Your task to perform on an android device: open chrome privacy settings Image 0: 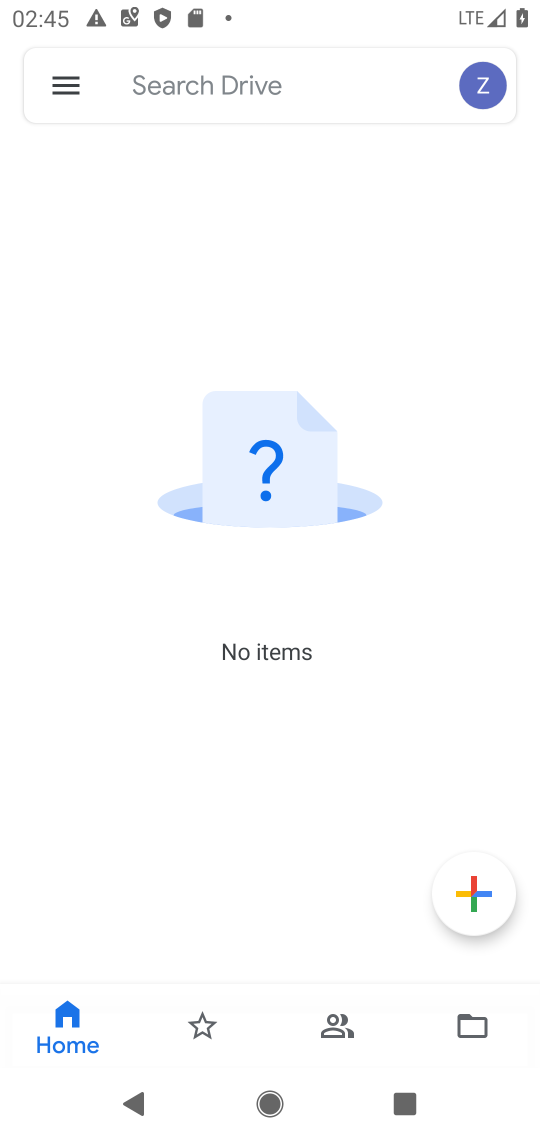
Step 0: press home button
Your task to perform on an android device: open chrome privacy settings Image 1: 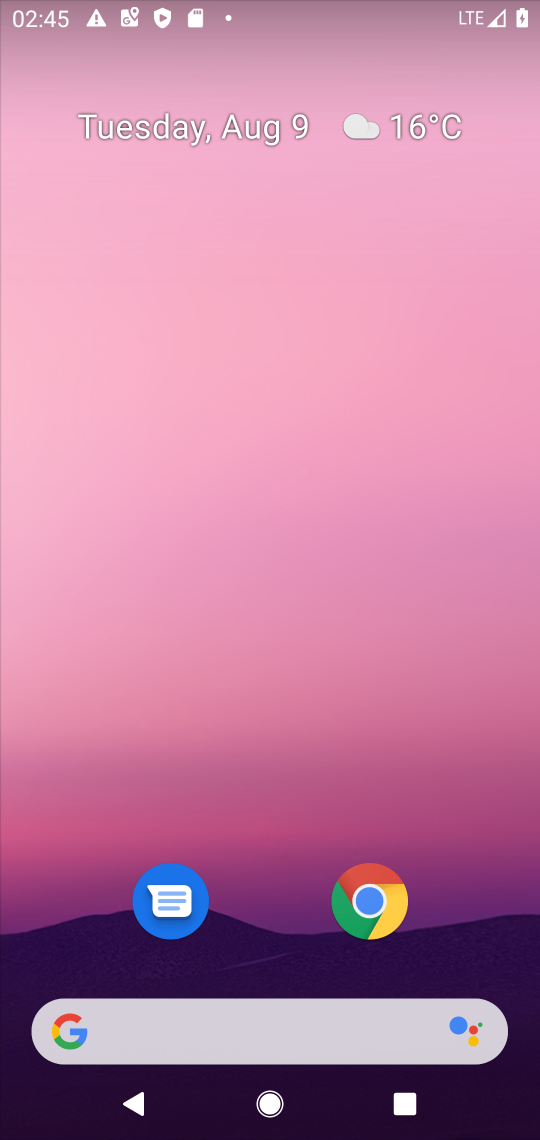
Step 1: click (371, 902)
Your task to perform on an android device: open chrome privacy settings Image 2: 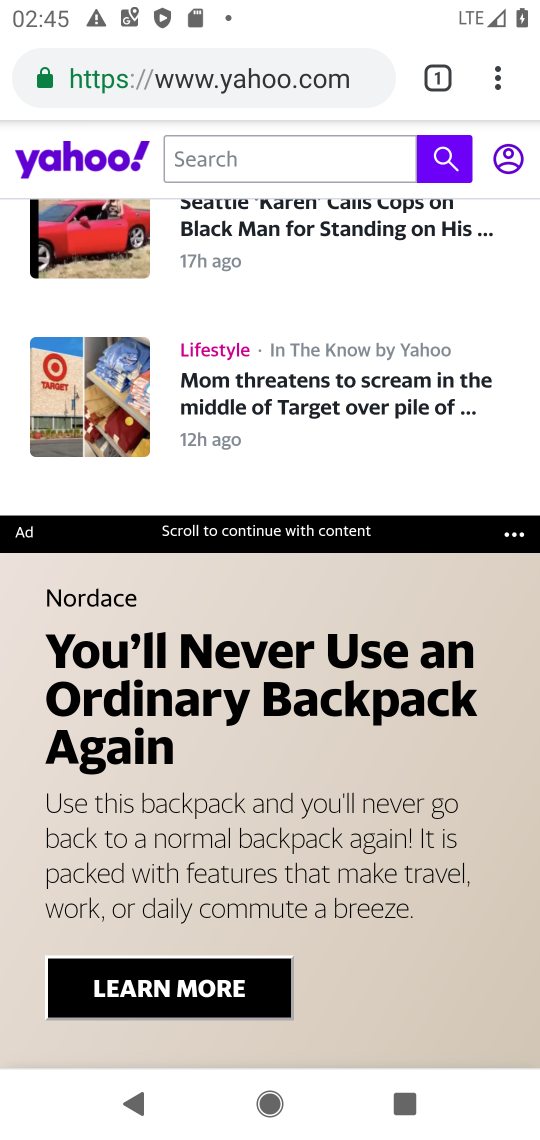
Step 2: click (492, 91)
Your task to perform on an android device: open chrome privacy settings Image 3: 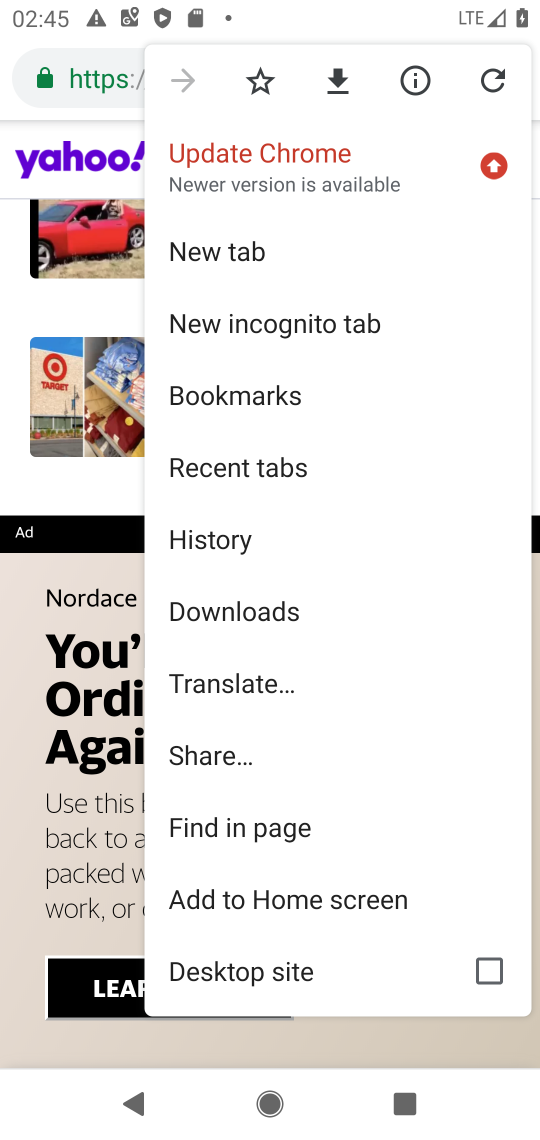
Step 3: drag from (291, 950) to (371, 423)
Your task to perform on an android device: open chrome privacy settings Image 4: 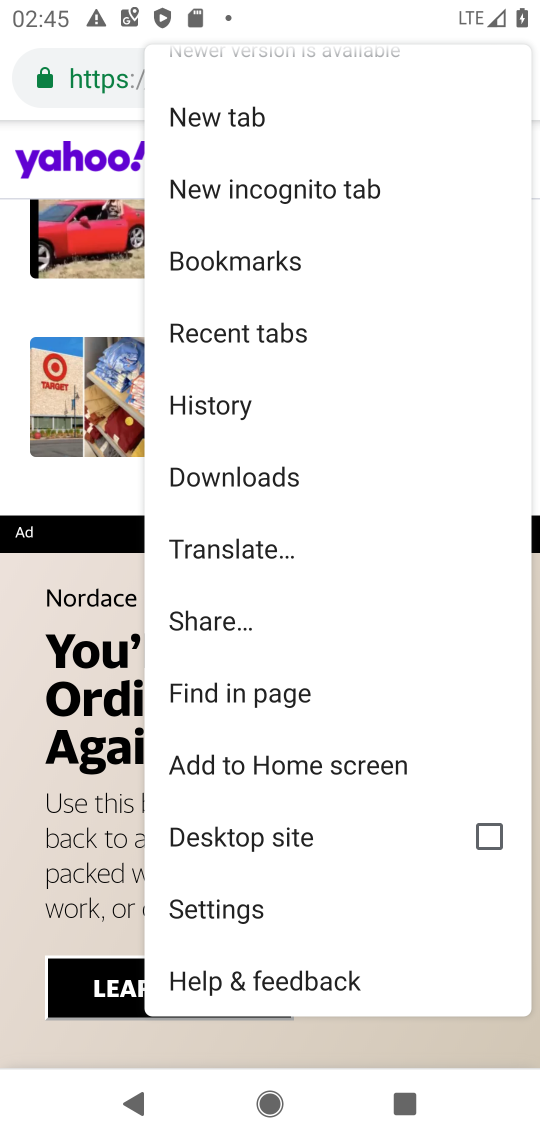
Step 4: click (190, 902)
Your task to perform on an android device: open chrome privacy settings Image 5: 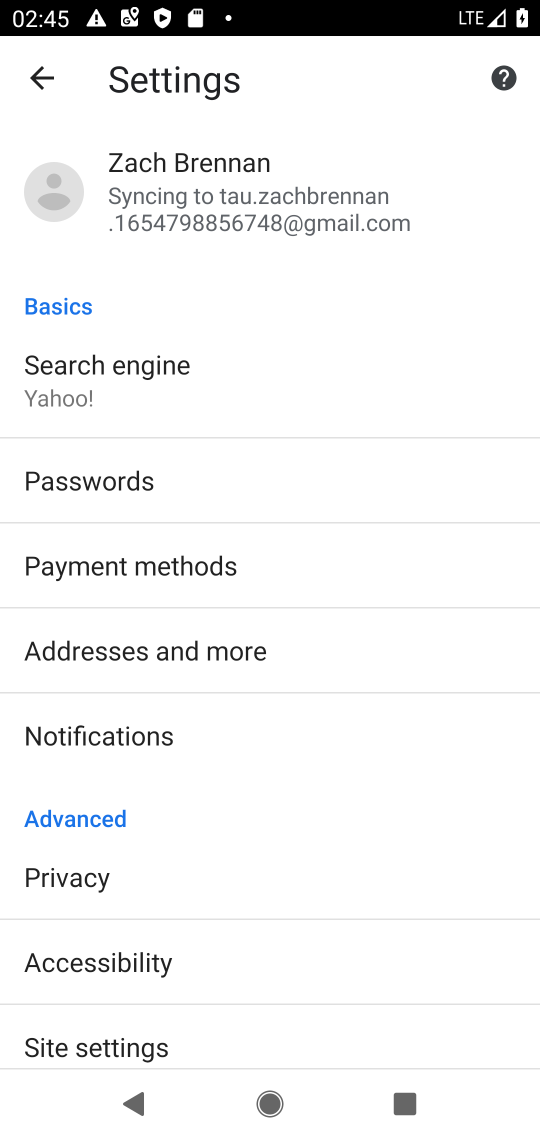
Step 5: click (45, 873)
Your task to perform on an android device: open chrome privacy settings Image 6: 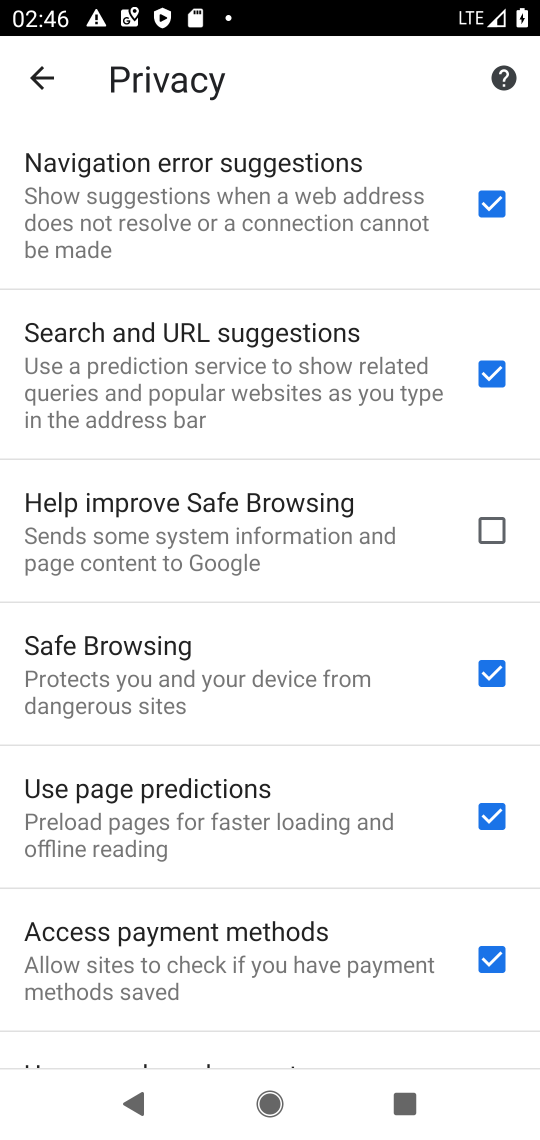
Step 6: task complete